Your task to perform on an android device: Check the news Image 0: 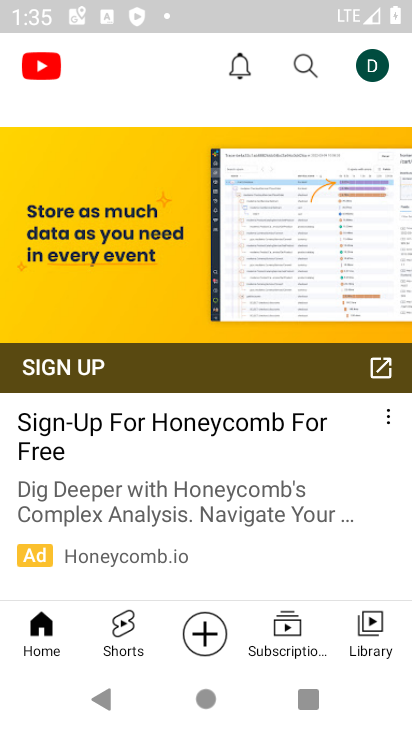
Step 0: press home button
Your task to perform on an android device: Check the news Image 1: 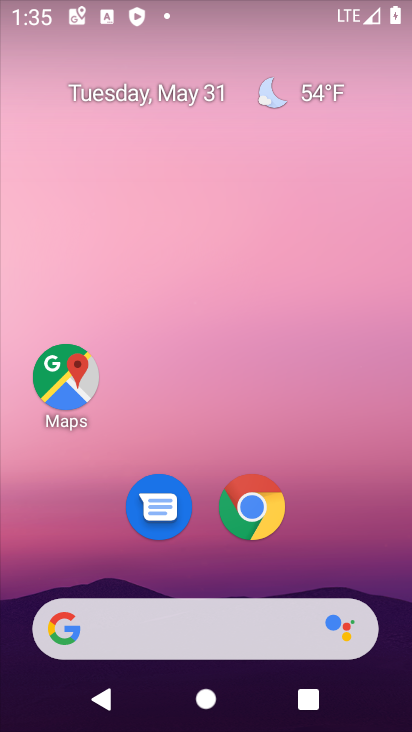
Step 1: click (404, 524)
Your task to perform on an android device: Check the news Image 2: 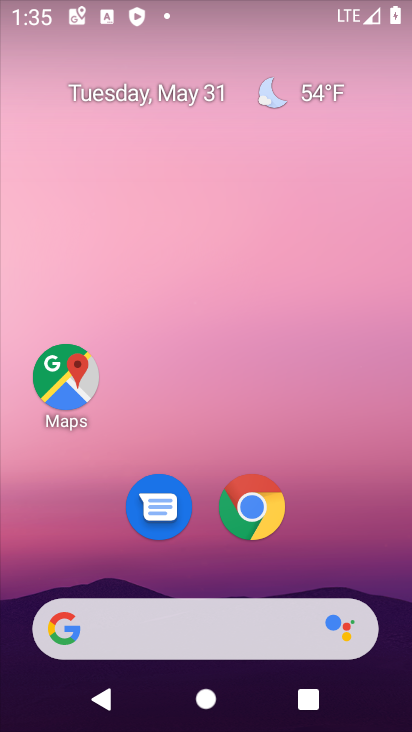
Step 2: click (52, 619)
Your task to perform on an android device: Check the news Image 3: 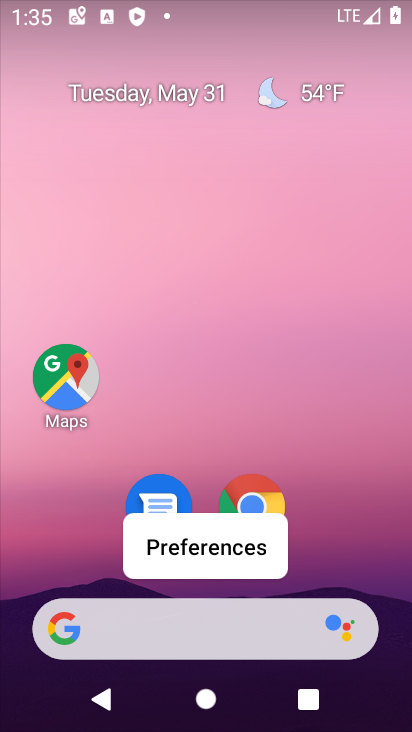
Step 3: drag from (380, 547) to (284, 12)
Your task to perform on an android device: Check the news Image 4: 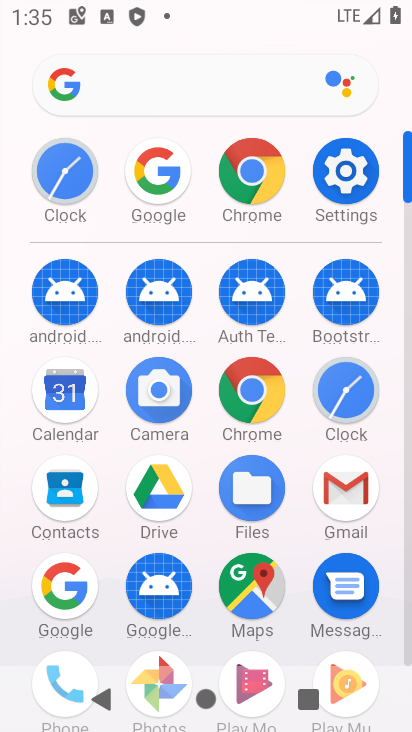
Step 4: click (56, 595)
Your task to perform on an android device: Check the news Image 5: 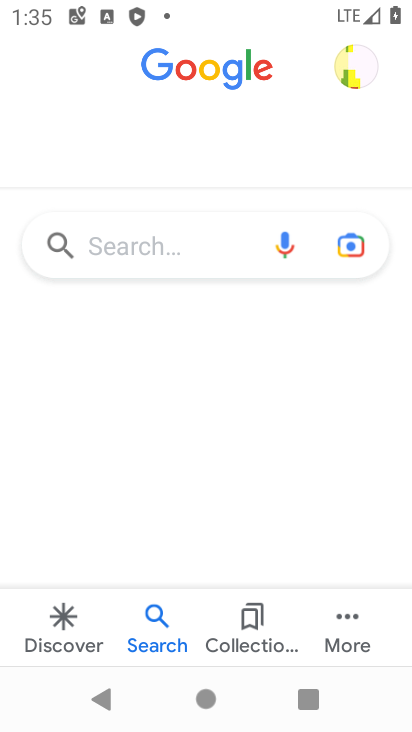
Step 5: click (147, 234)
Your task to perform on an android device: Check the news Image 6: 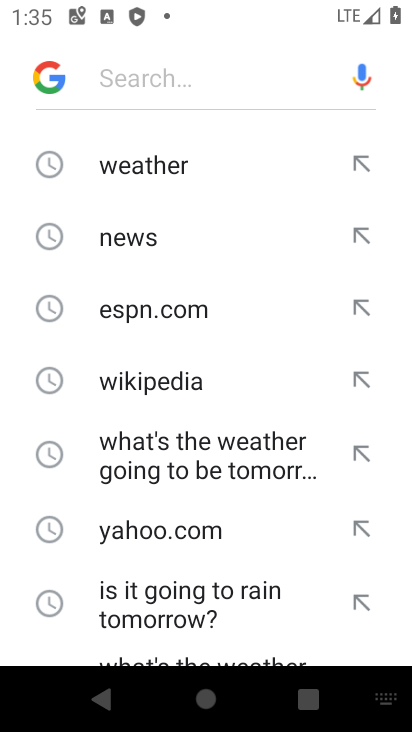
Step 6: click (155, 241)
Your task to perform on an android device: Check the news Image 7: 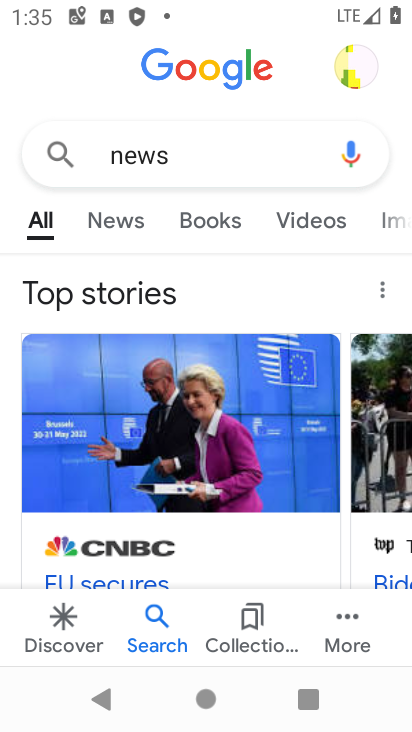
Step 7: task complete